Your task to perform on an android device: allow cookies in the chrome app Image 0: 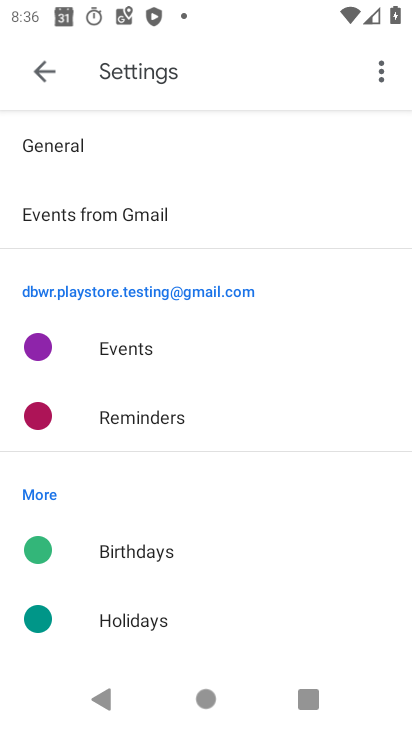
Step 0: press home button
Your task to perform on an android device: allow cookies in the chrome app Image 1: 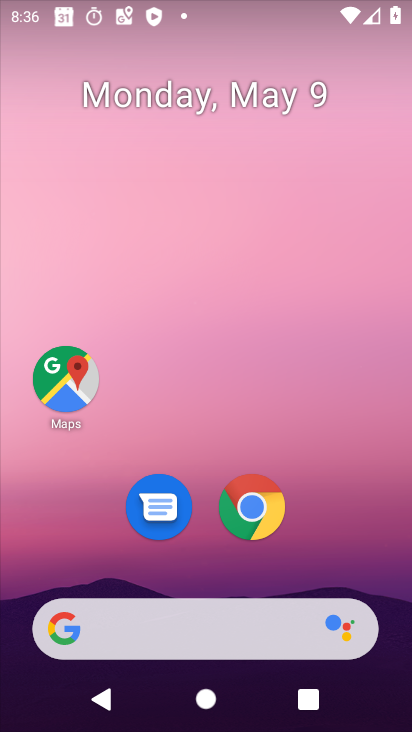
Step 1: drag from (246, 646) to (232, 233)
Your task to perform on an android device: allow cookies in the chrome app Image 2: 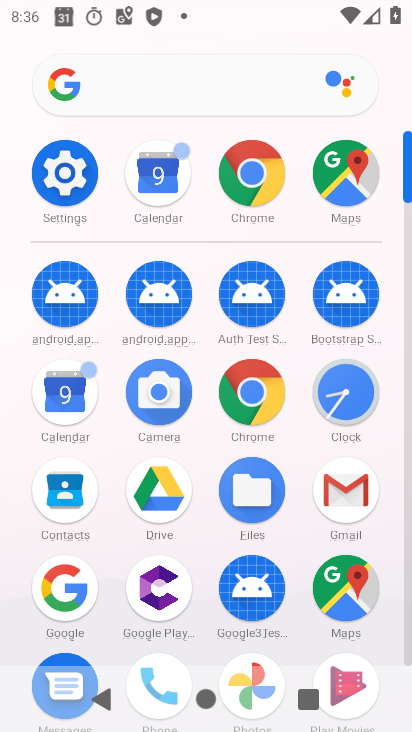
Step 2: click (252, 172)
Your task to perform on an android device: allow cookies in the chrome app Image 3: 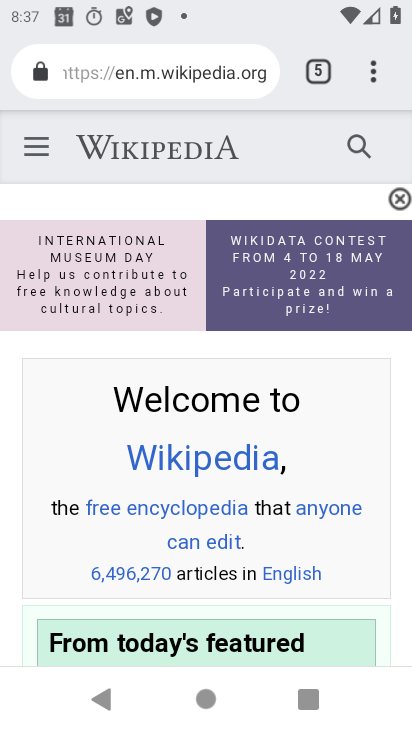
Step 3: click (380, 86)
Your task to perform on an android device: allow cookies in the chrome app Image 4: 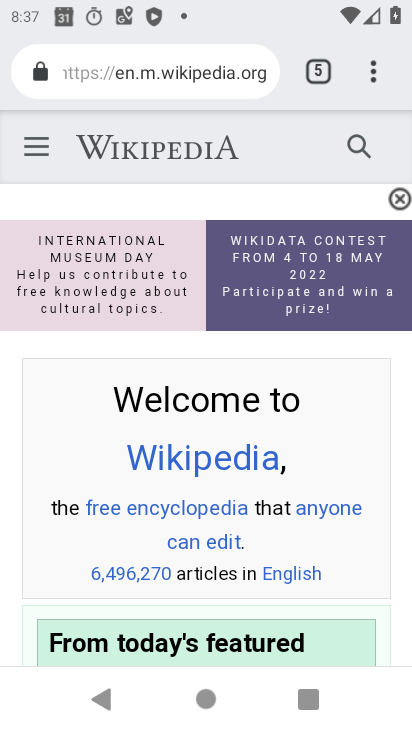
Step 4: click (362, 74)
Your task to perform on an android device: allow cookies in the chrome app Image 5: 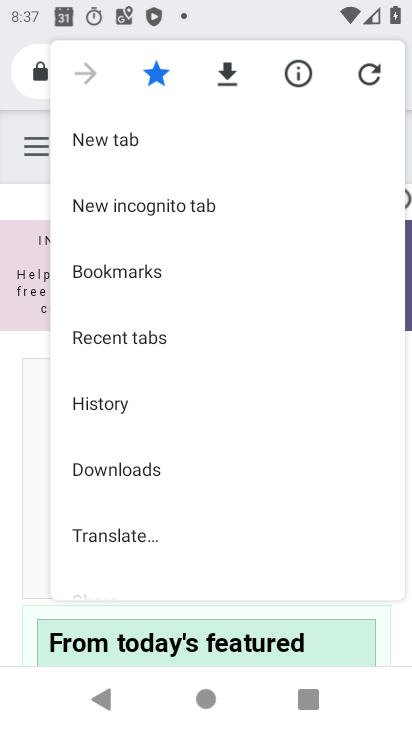
Step 5: drag from (127, 483) to (218, 294)
Your task to perform on an android device: allow cookies in the chrome app Image 6: 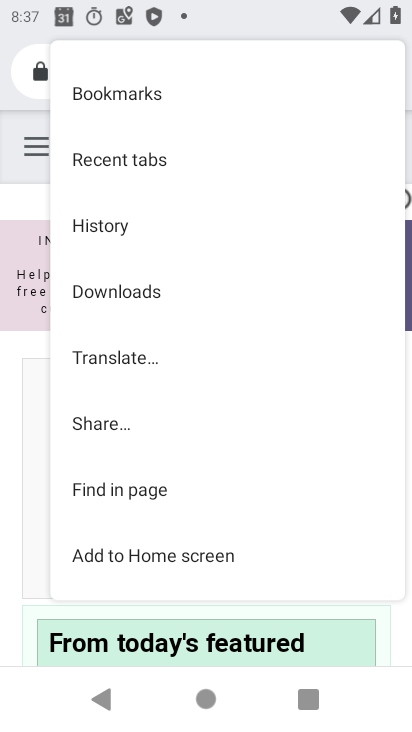
Step 6: drag from (146, 507) to (189, 321)
Your task to perform on an android device: allow cookies in the chrome app Image 7: 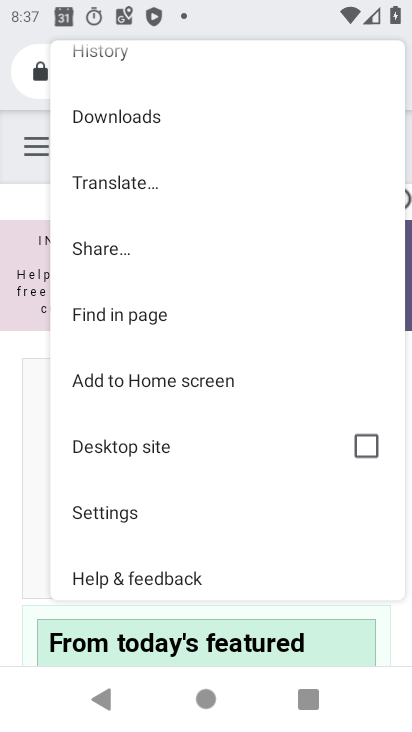
Step 7: click (134, 502)
Your task to perform on an android device: allow cookies in the chrome app Image 8: 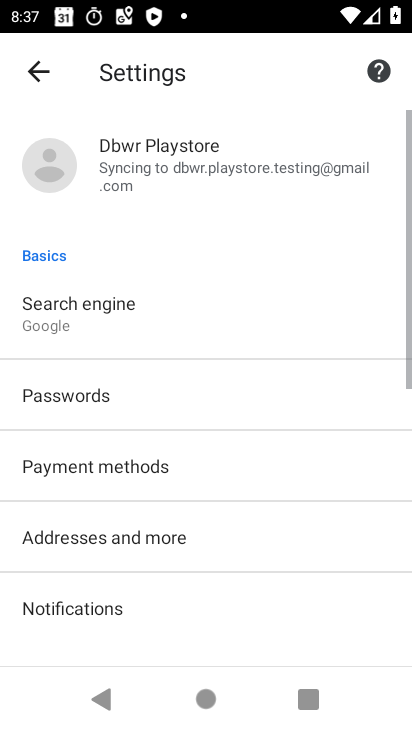
Step 8: drag from (184, 495) to (242, 257)
Your task to perform on an android device: allow cookies in the chrome app Image 9: 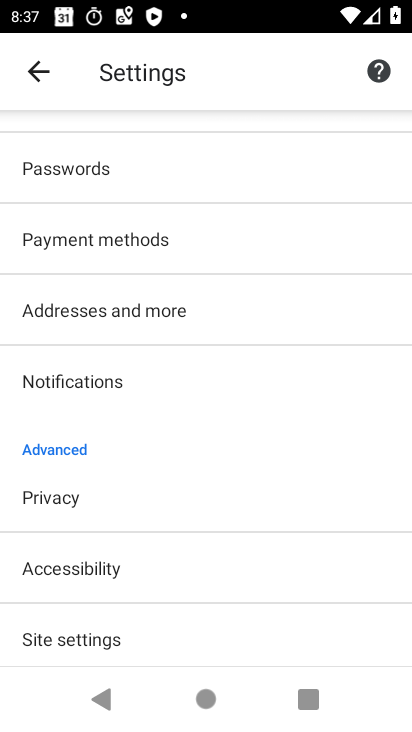
Step 9: click (94, 633)
Your task to perform on an android device: allow cookies in the chrome app Image 10: 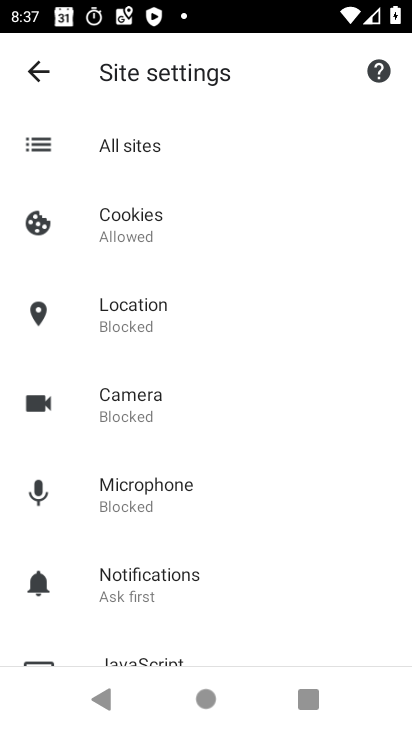
Step 10: click (161, 236)
Your task to perform on an android device: allow cookies in the chrome app Image 11: 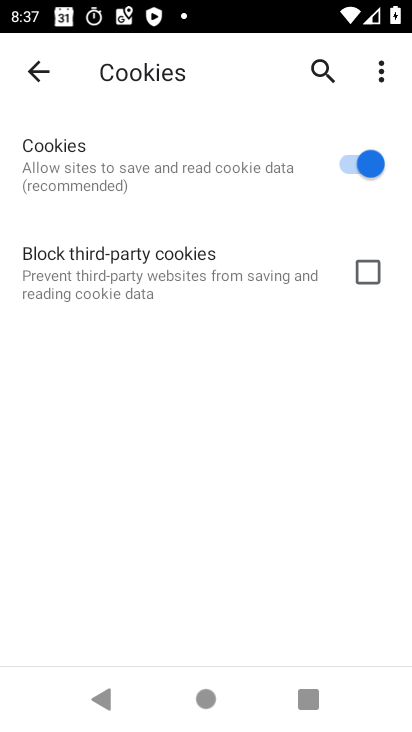
Step 11: click (352, 173)
Your task to perform on an android device: allow cookies in the chrome app Image 12: 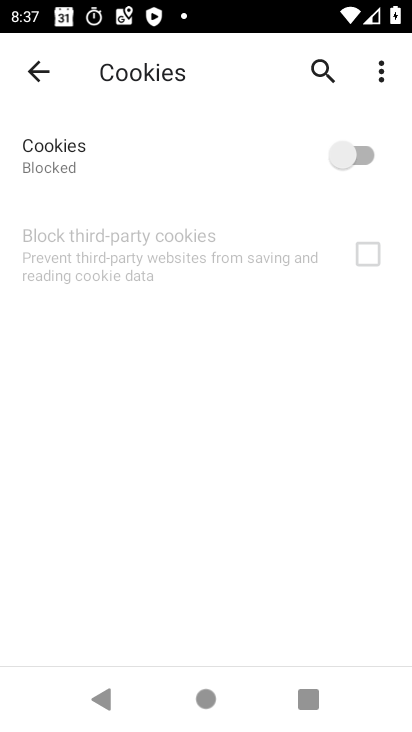
Step 12: click (352, 173)
Your task to perform on an android device: allow cookies in the chrome app Image 13: 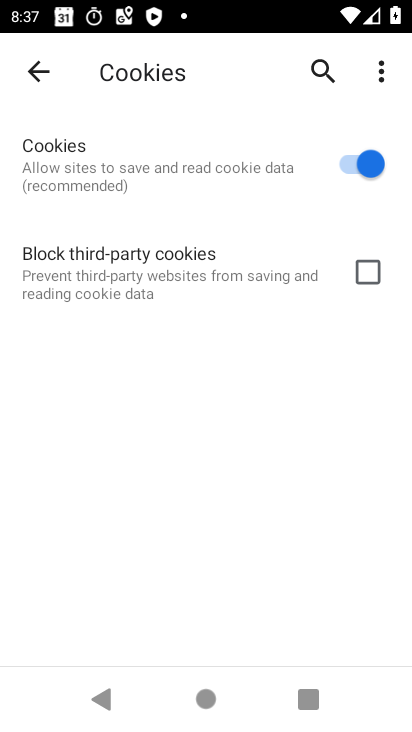
Step 13: task complete